Your task to perform on an android device: Go to Google Image 0: 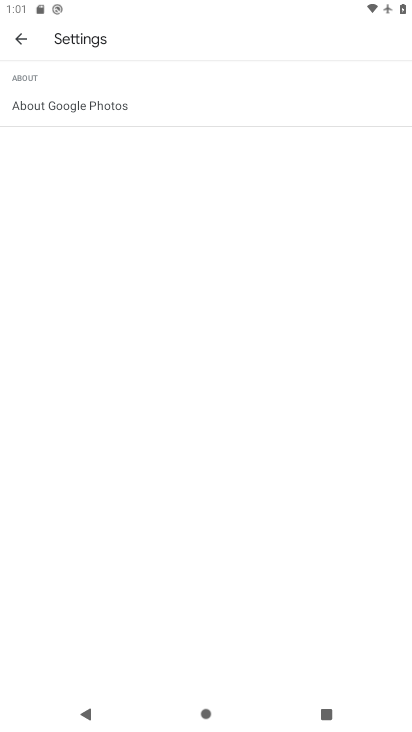
Step 0: press home button
Your task to perform on an android device: Go to Google Image 1: 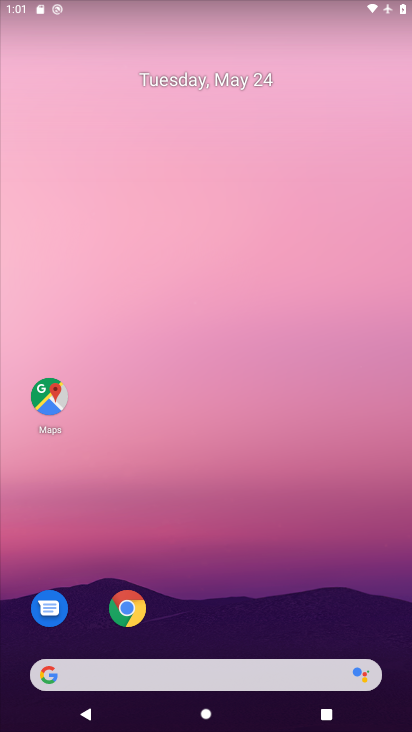
Step 1: drag from (329, 576) to (303, 218)
Your task to perform on an android device: Go to Google Image 2: 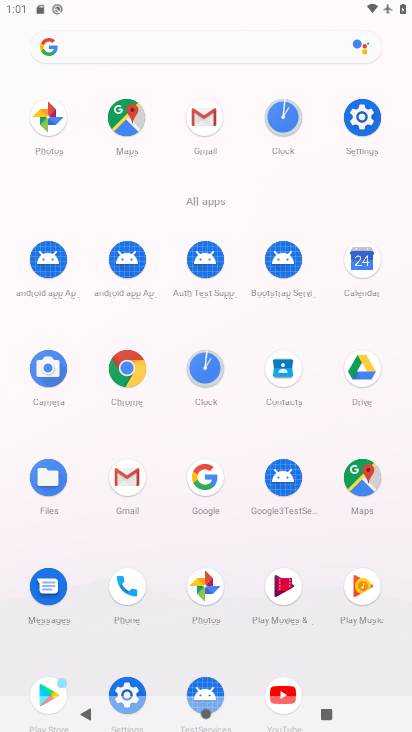
Step 2: click (192, 51)
Your task to perform on an android device: Go to Google Image 3: 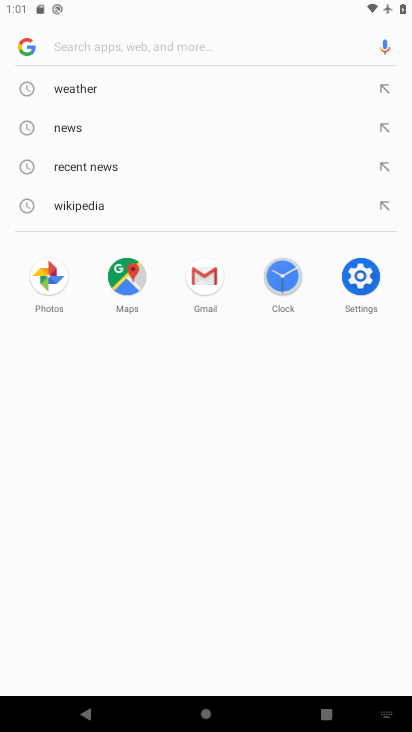
Step 3: type "google.com"
Your task to perform on an android device: Go to Google Image 4: 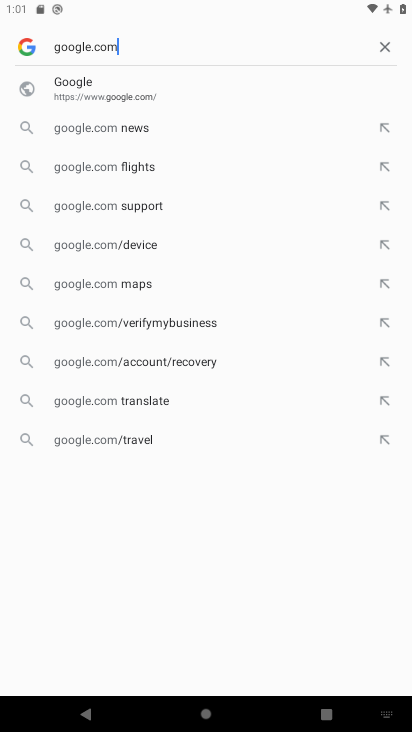
Step 4: click (100, 95)
Your task to perform on an android device: Go to Google Image 5: 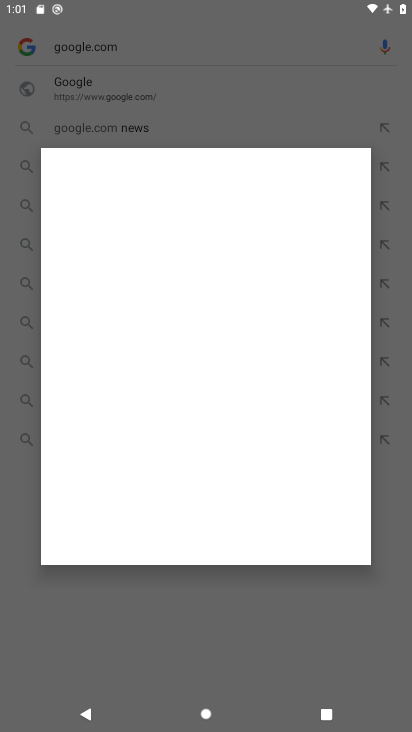
Step 5: task complete